Your task to perform on an android device: Open Yahoo.com Image 0: 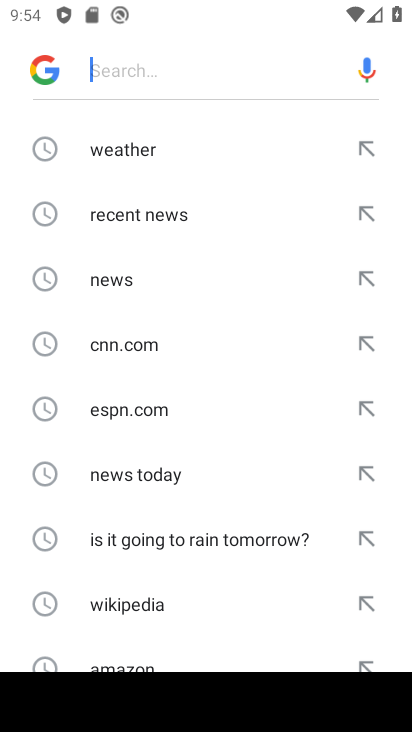
Step 0: press home button
Your task to perform on an android device: Open Yahoo.com Image 1: 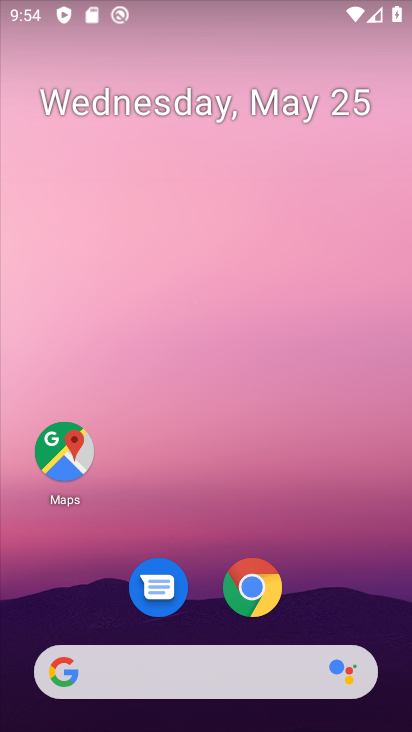
Step 1: click (248, 588)
Your task to perform on an android device: Open Yahoo.com Image 2: 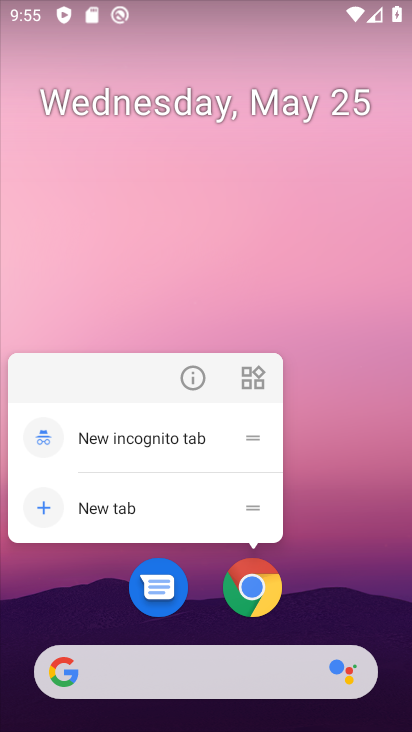
Step 2: click (252, 579)
Your task to perform on an android device: Open Yahoo.com Image 3: 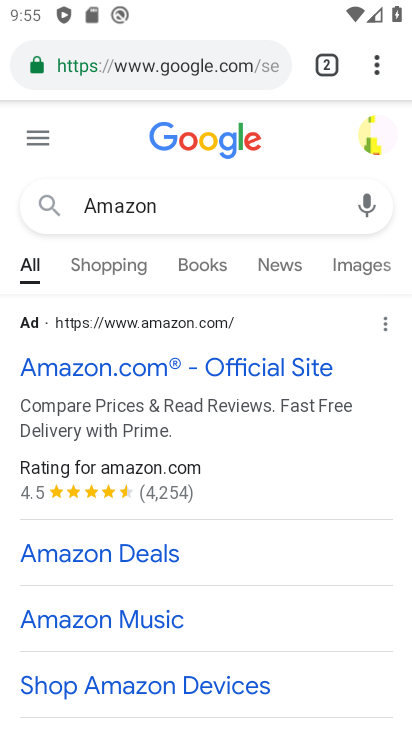
Step 3: click (182, 58)
Your task to perform on an android device: Open Yahoo.com Image 4: 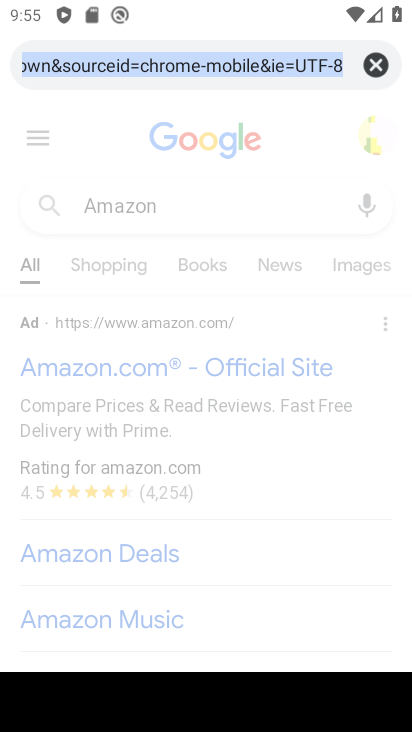
Step 4: type "yahoo.com"
Your task to perform on an android device: Open Yahoo.com Image 5: 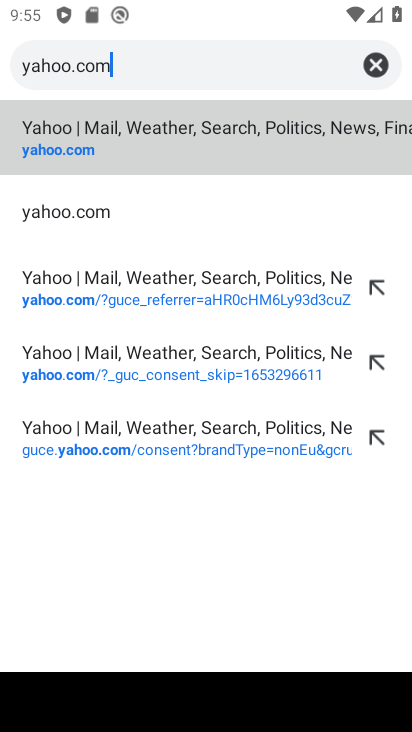
Step 5: click (196, 139)
Your task to perform on an android device: Open Yahoo.com Image 6: 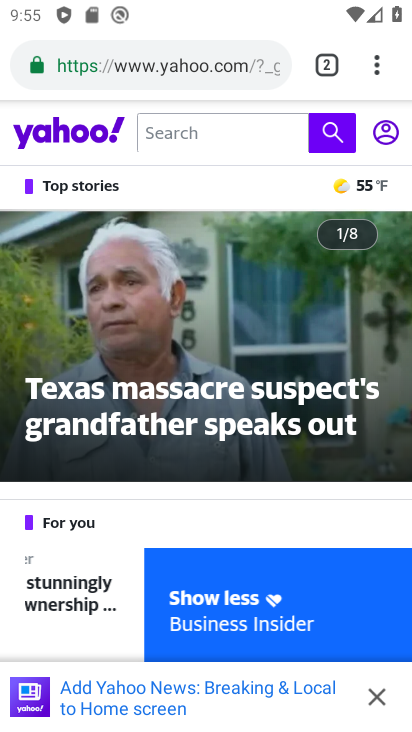
Step 6: task complete